Your task to perform on an android device: install app "Contacts" Image 0: 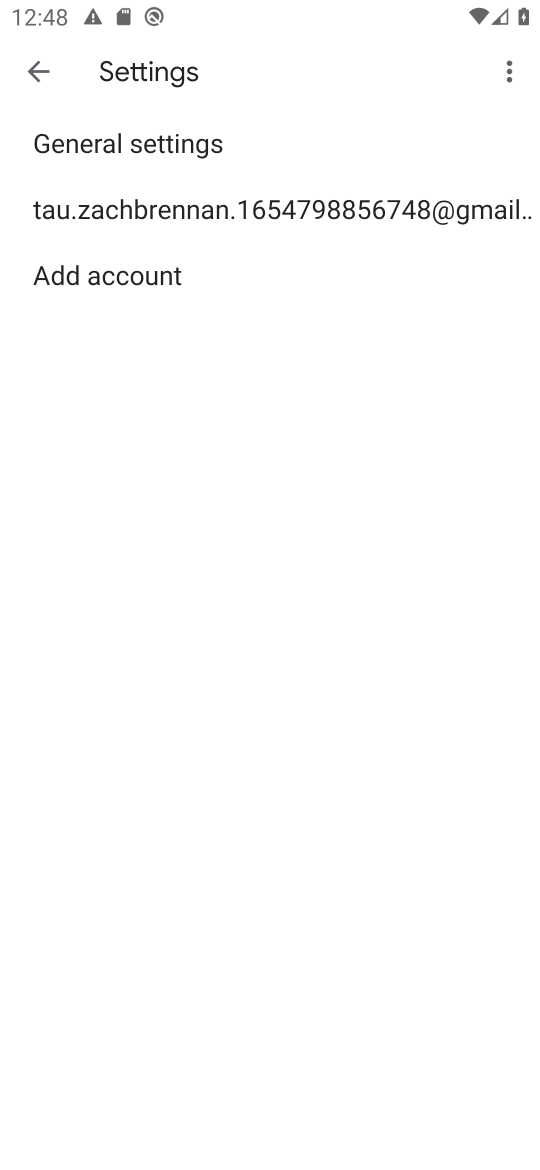
Step 0: press home button
Your task to perform on an android device: install app "Contacts" Image 1: 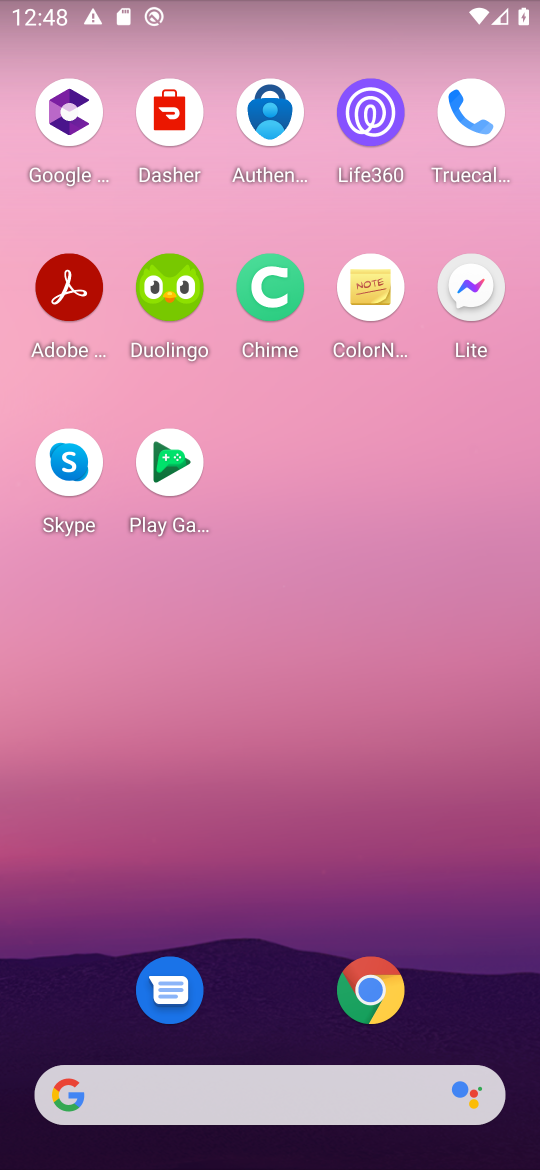
Step 1: drag from (278, 1001) to (289, 236)
Your task to perform on an android device: install app "Contacts" Image 2: 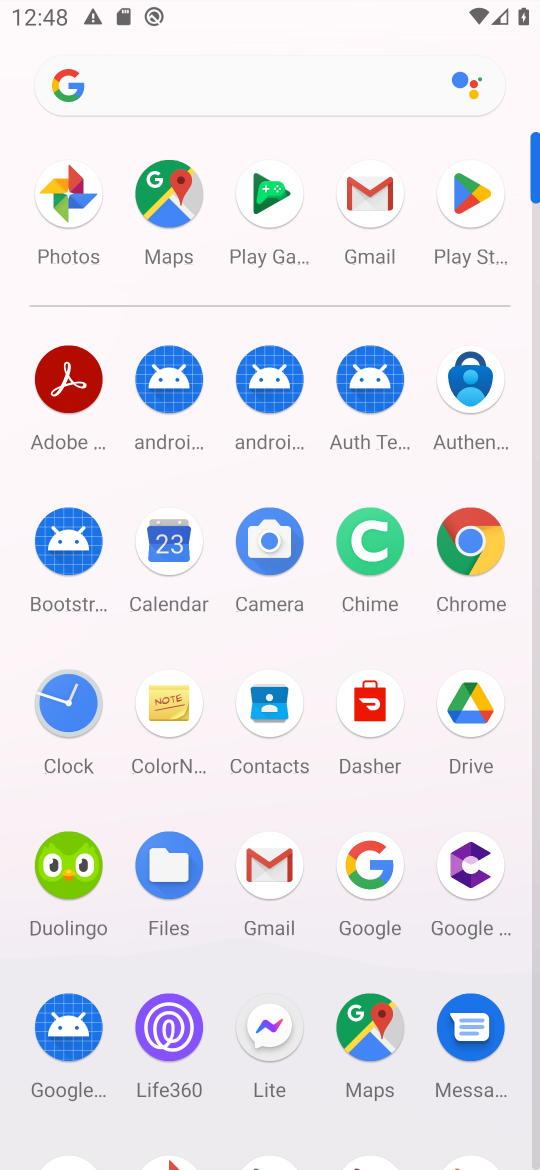
Step 2: click (466, 200)
Your task to perform on an android device: install app "Contacts" Image 3: 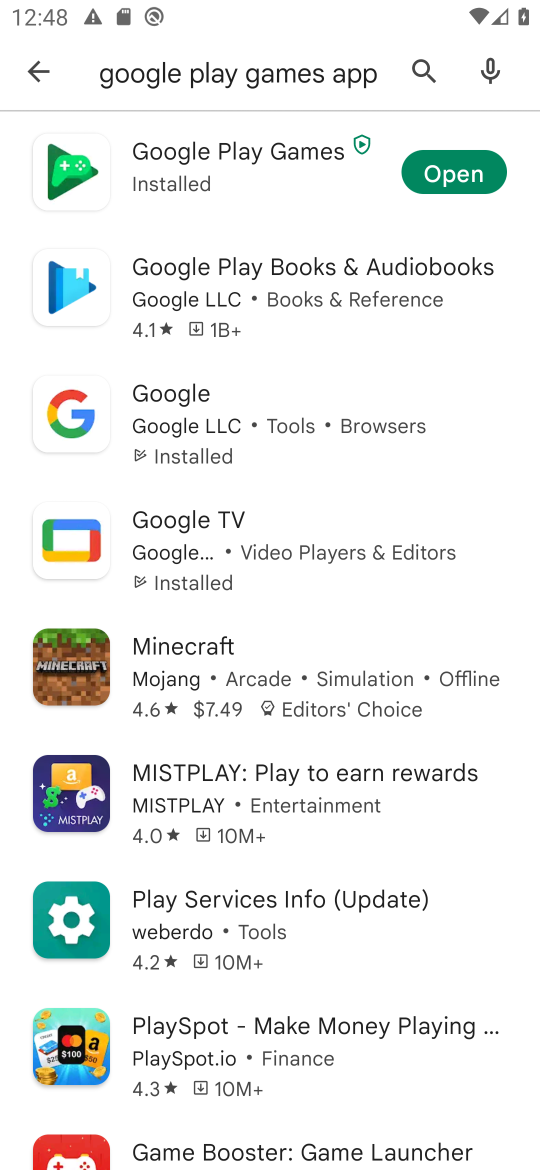
Step 3: click (55, 58)
Your task to perform on an android device: install app "Contacts" Image 4: 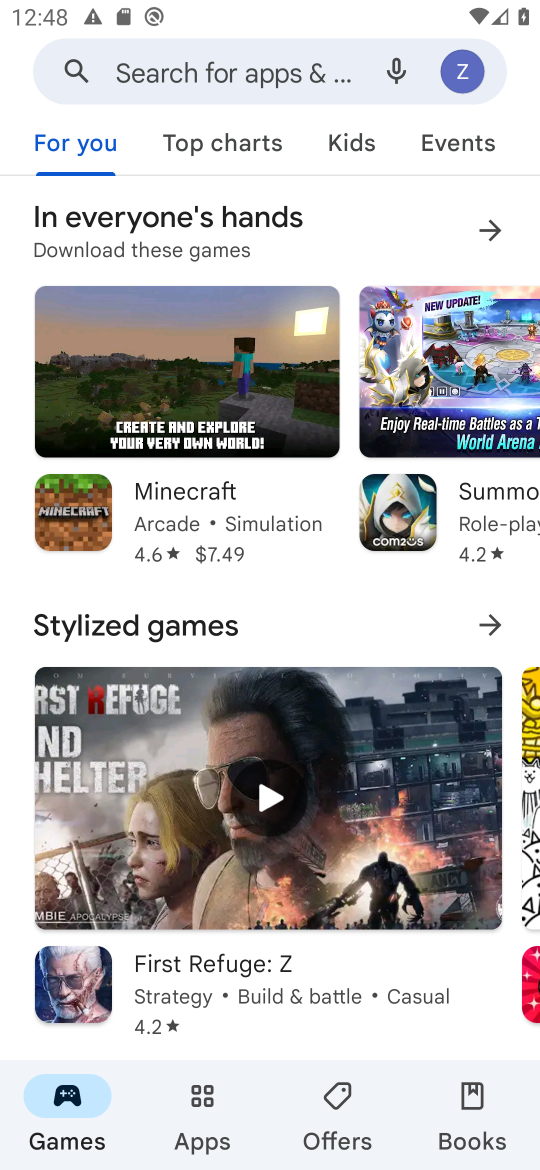
Step 4: click (174, 73)
Your task to perform on an android device: install app "Contacts" Image 5: 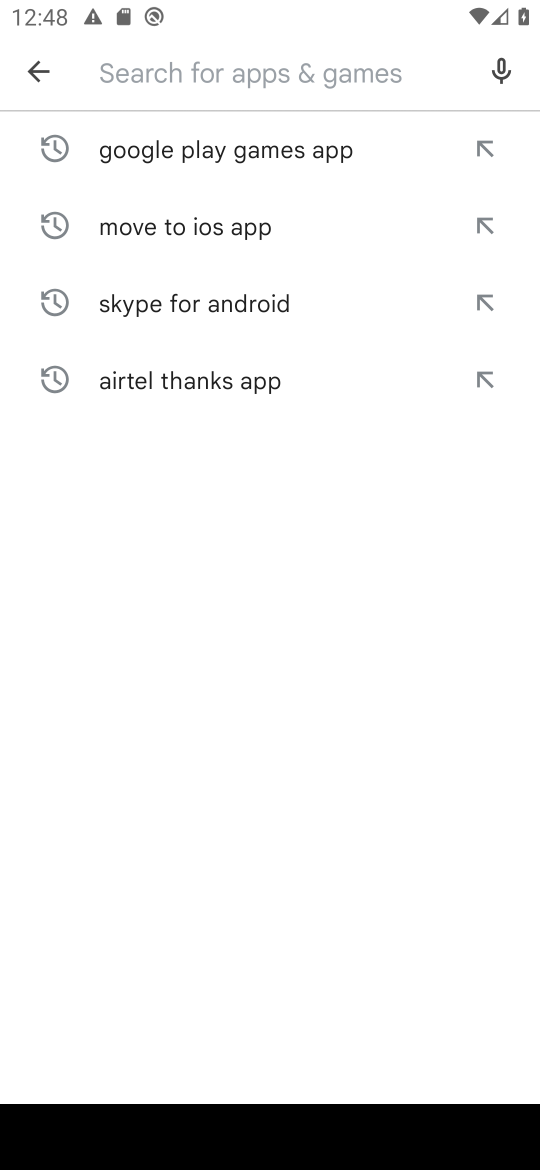
Step 5: type "contact "
Your task to perform on an android device: install app "Contacts" Image 6: 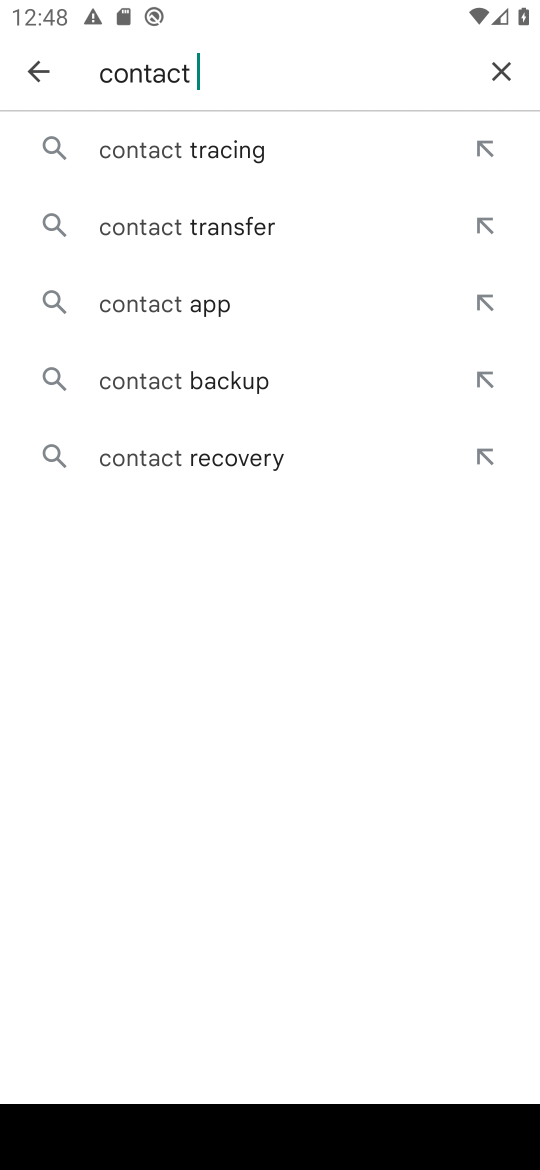
Step 6: click (183, 314)
Your task to perform on an android device: install app "Contacts" Image 7: 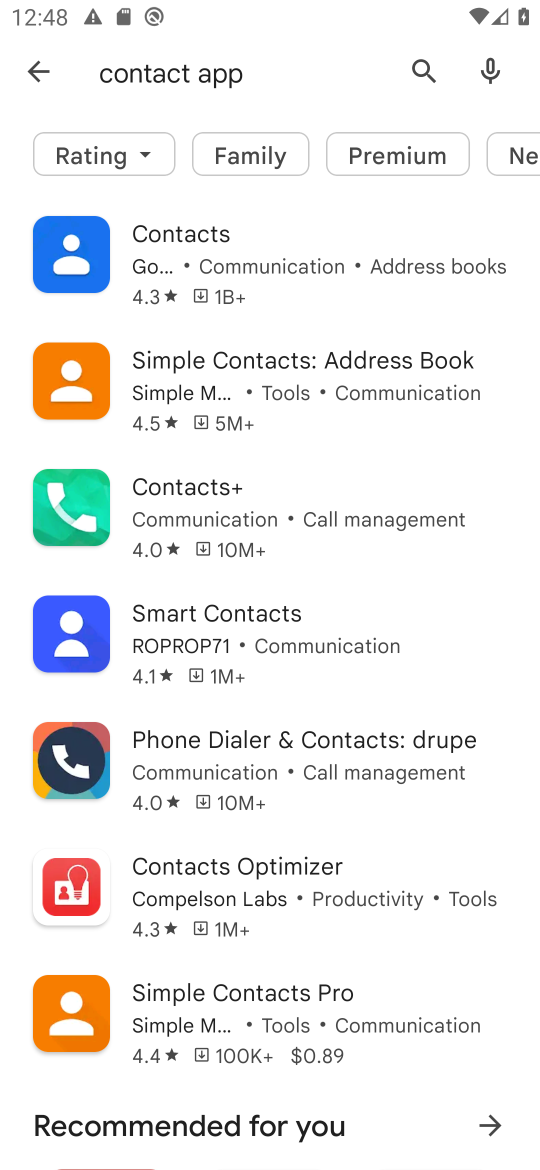
Step 7: click (289, 266)
Your task to perform on an android device: install app "Contacts" Image 8: 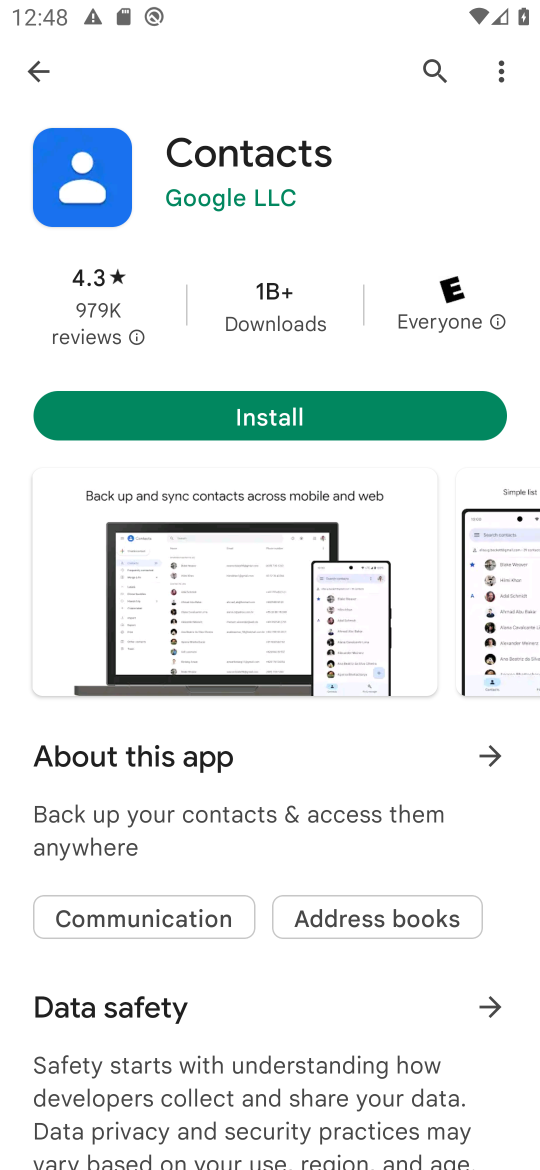
Step 8: click (321, 394)
Your task to perform on an android device: install app "Contacts" Image 9: 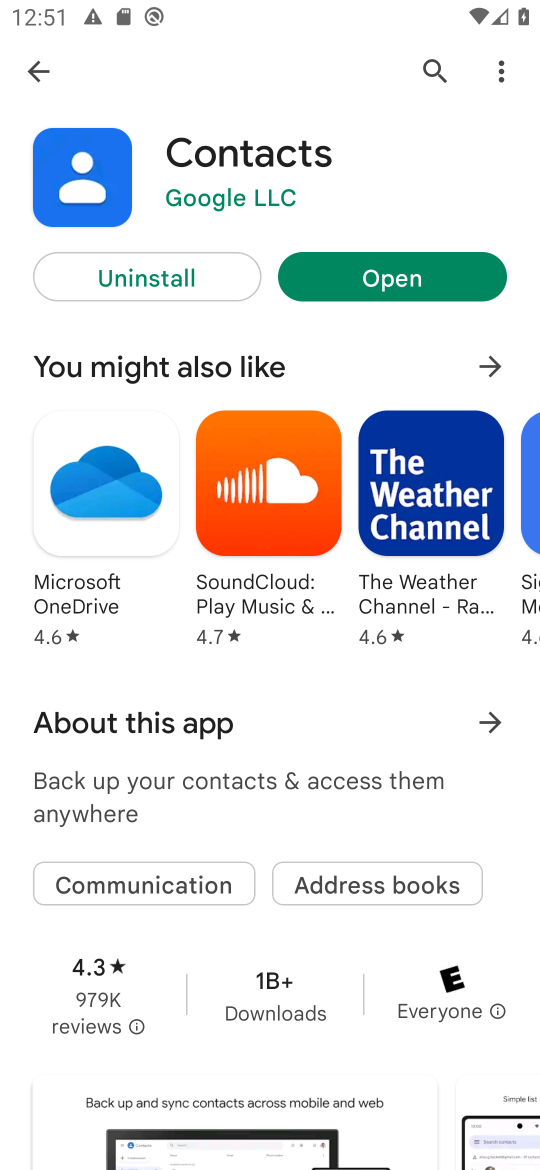
Step 9: click (413, 271)
Your task to perform on an android device: install app "Contacts" Image 10: 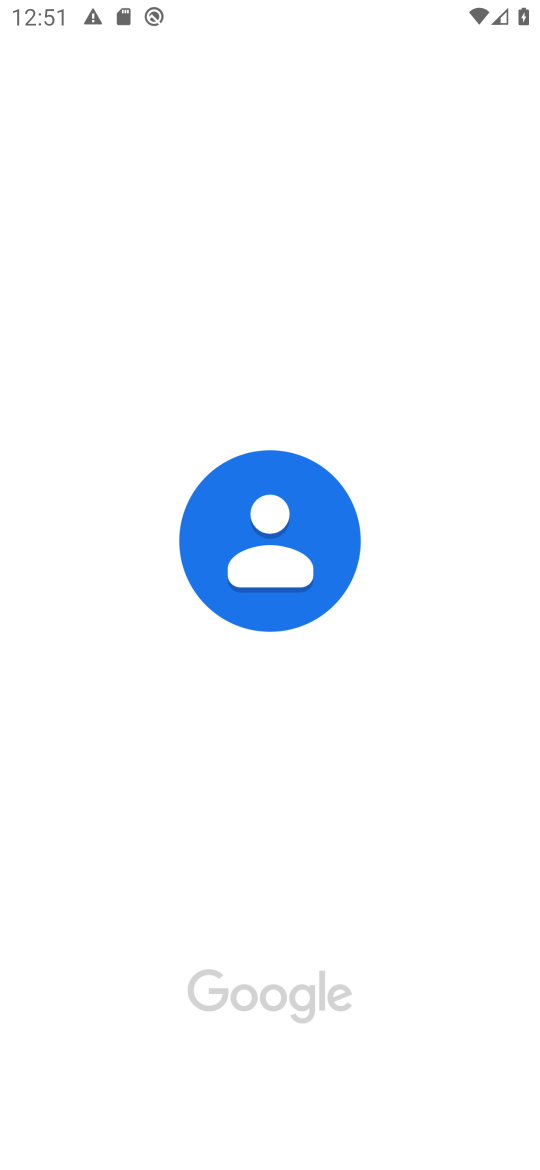
Step 10: task complete